Your task to perform on an android device: Open calendar and show me the fourth week of next month Image 0: 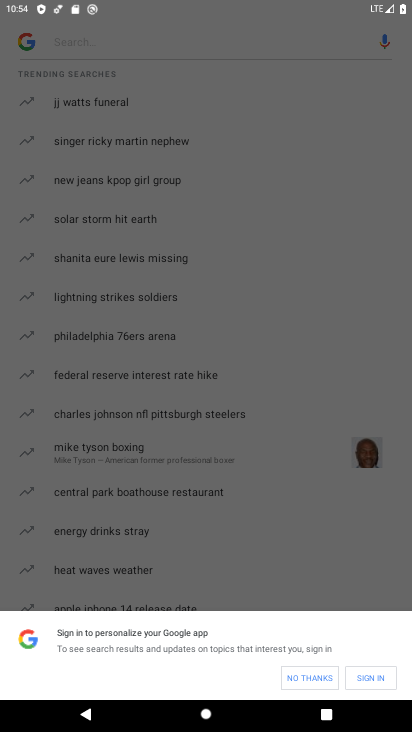
Step 0: press home button
Your task to perform on an android device: Open calendar and show me the fourth week of next month Image 1: 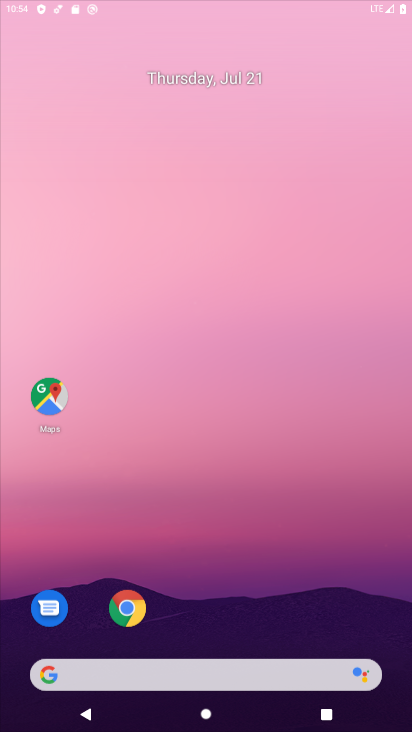
Step 1: drag from (164, 585) to (194, 93)
Your task to perform on an android device: Open calendar and show me the fourth week of next month Image 2: 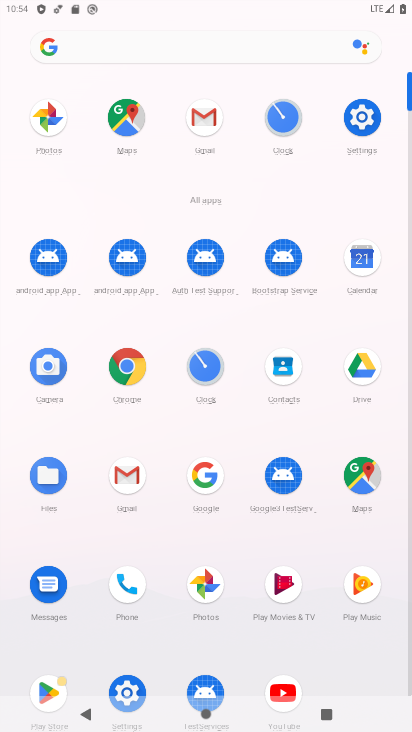
Step 2: click (364, 252)
Your task to perform on an android device: Open calendar and show me the fourth week of next month Image 3: 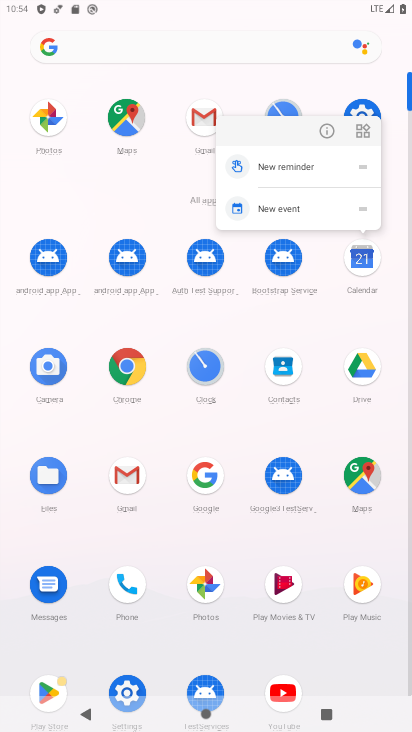
Step 3: click (319, 128)
Your task to perform on an android device: Open calendar and show me the fourth week of next month Image 4: 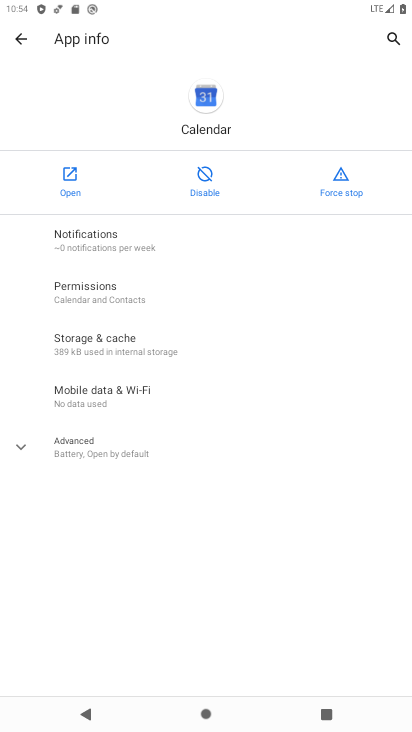
Step 4: click (70, 186)
Your task to perform on an android device: Open calendar and show me the fourth week of next month Image 5: 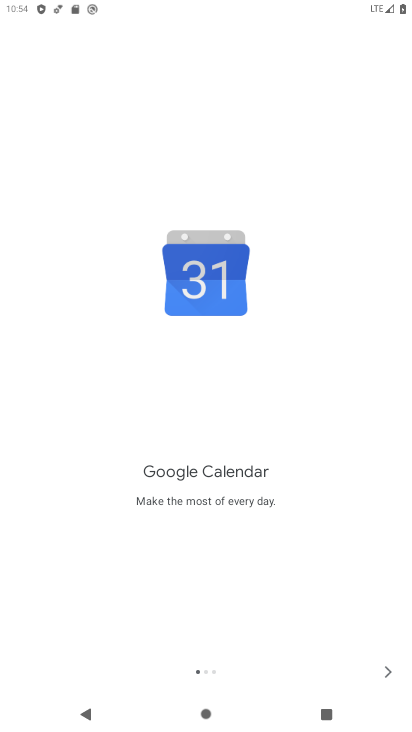
Step 5: click (389, 666)
Your task to perform on an android device: Open calendar and show me the fourth week of next month Image 6: 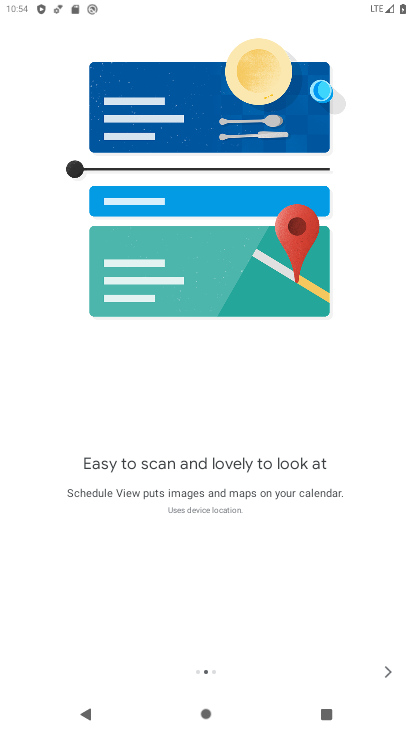
Step 6: click (377, 663)
Your task to perform on an android device: Open calendar and show me the fourth week of next month Image 7: 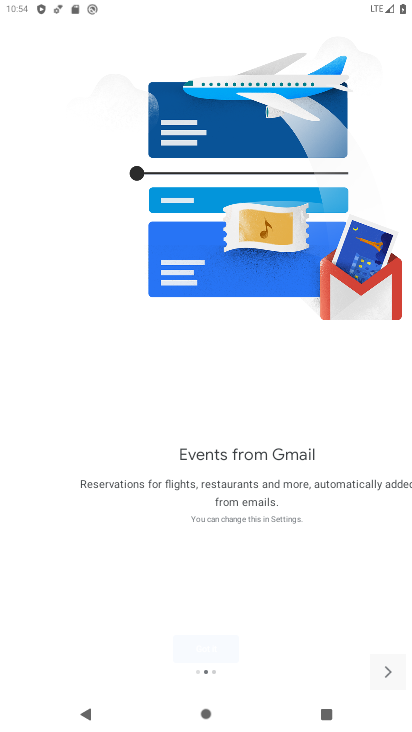
Step 7: click (377, 663)
Your task to perform on an android device: Open calendar and show me the fourth week of next month Image 8: 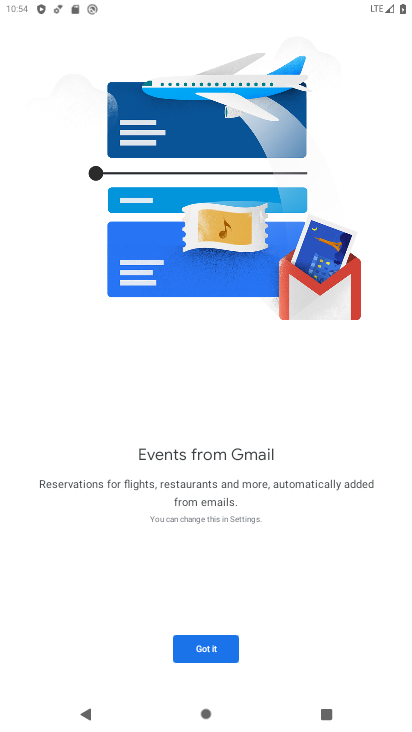
Step 8: click (376, 664)
Your task to perform on an android device: Open calendar and show me the fourth week of next month Image 9: 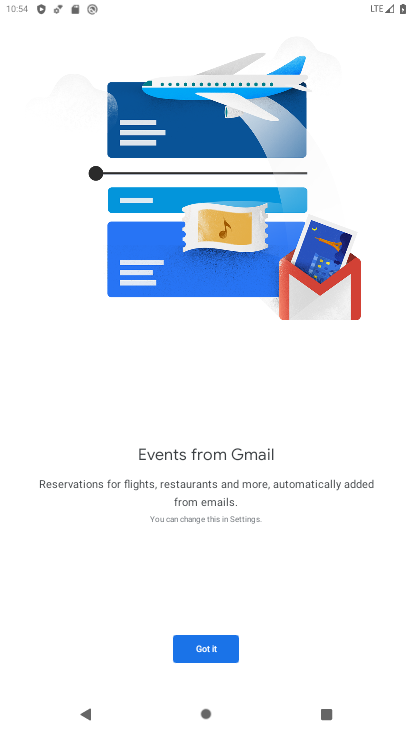
Step 9: click (191, 654)
Your task to perform on an android device: Open calendar and show me the fourth week of next month Image 10: 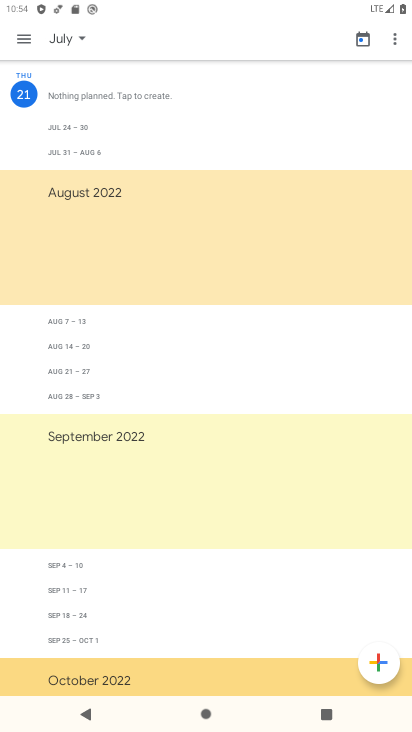
Step 10: click (71, 36)
Your task to perform on an android device: Open calendar and show me the fourth week of next month Image 11: 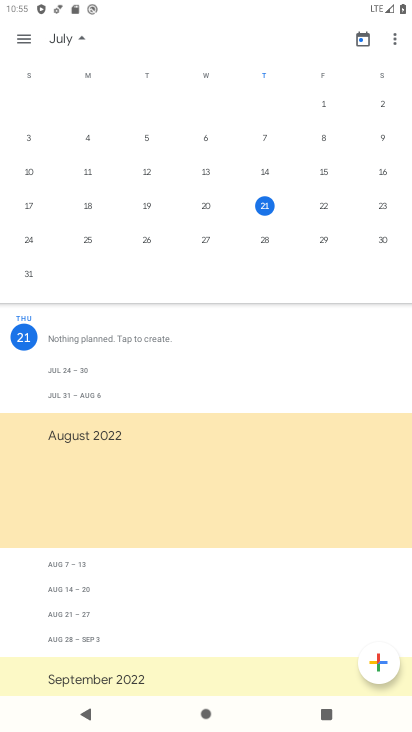
Step 11: drag from (358, 209) to (29, 218)
Your task to perform on an android device: Open calendar and show me the fourth week of next month Image 12: 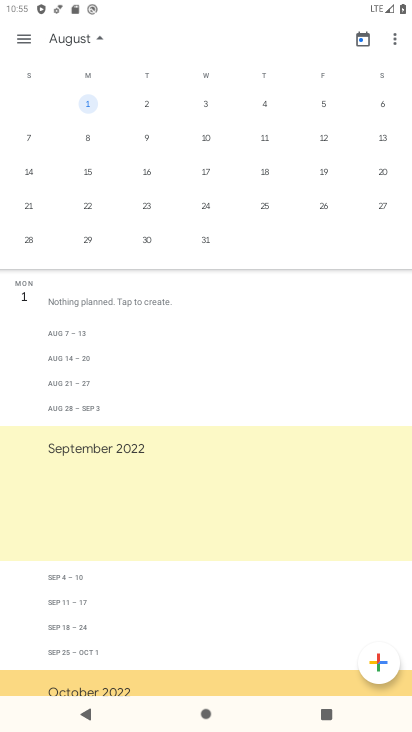
Step 12: click (266, 175)
Your task to perform on an android device: Open calendar and show me the fourth week of next month Image 13: 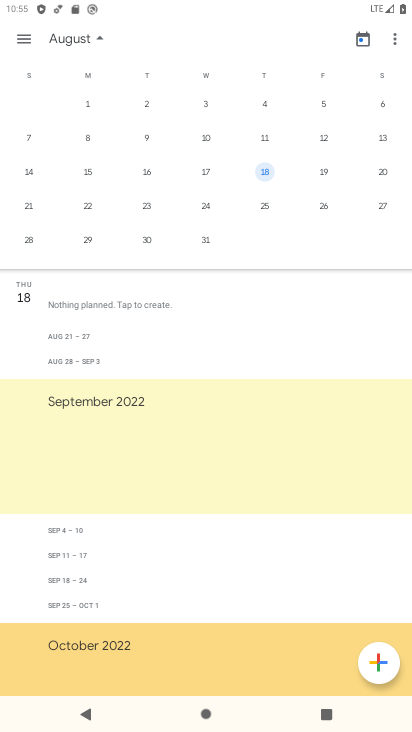
Step 13: click (260, 203)
Your task to perform on an android device: Open calendar and show me the fourth week of next month Image 14: 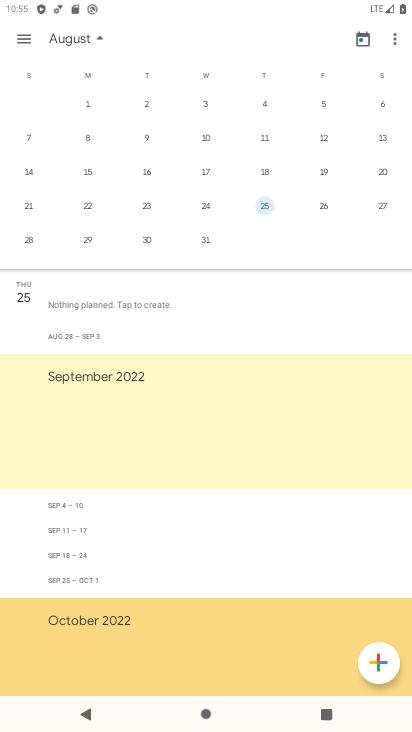
Step 14: task complete